Your task to perform on an android device: Go to Maps Image 0: 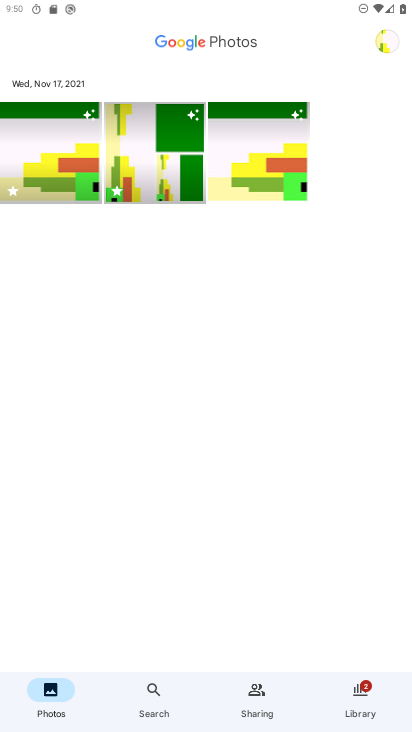
Step 0: press home button
Your task to perform on an android device: Go to Maps Image 1: 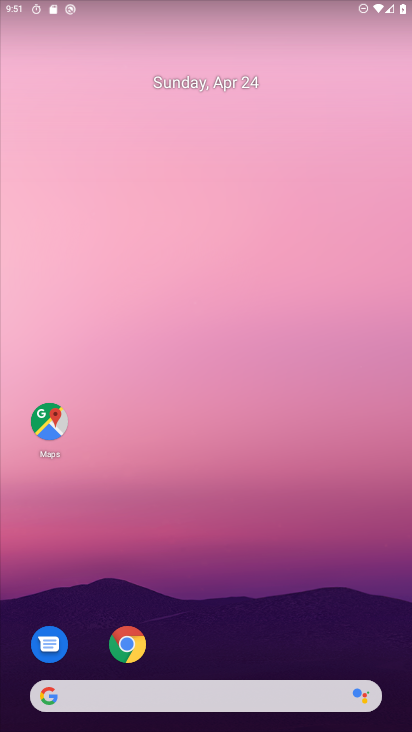
Step 1: drag from (199, 668) to (186, 29)
Your task to perform on an android device: Go to Maps Image 2: 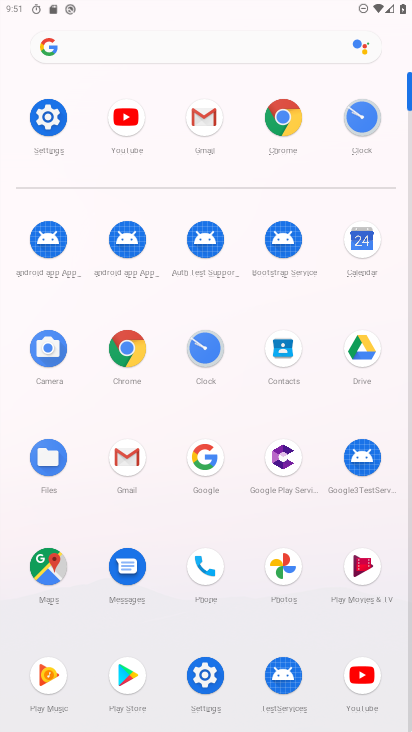
Step 2: click (43, 568)
Your task to perform on an android device: Go to Maps Image 3: 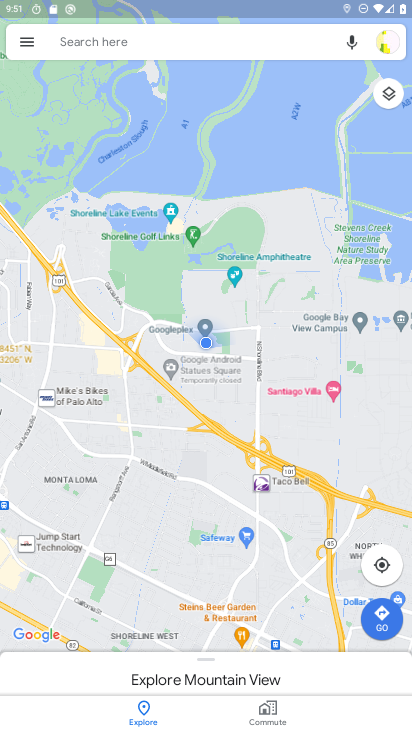
Step 3: task complete